Your task to perform on an android device: change text size in settings app Image 0: 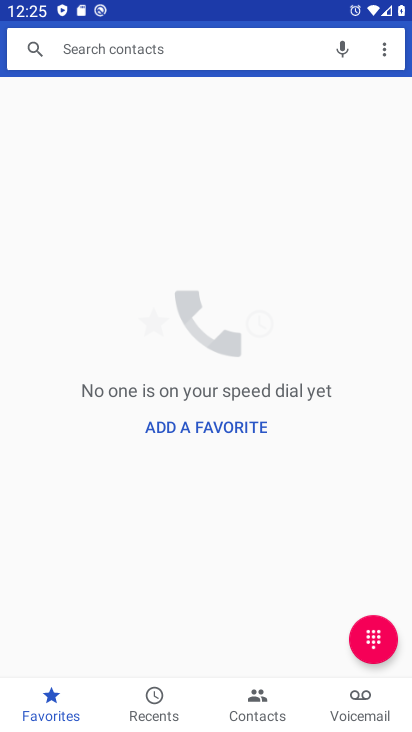
Step 0: press home button
Your task to perform on an android device: change text size in settings app Image 1: 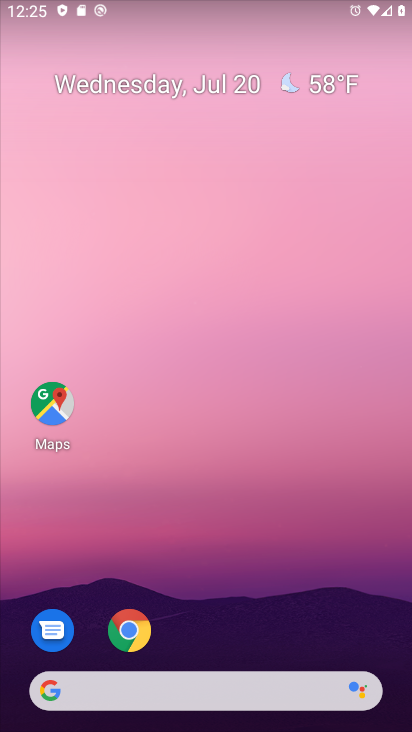
Step 1: drag from (227, 323) to (270, 150)
Your task to perform on an android device: change text size in settings app Image 2: 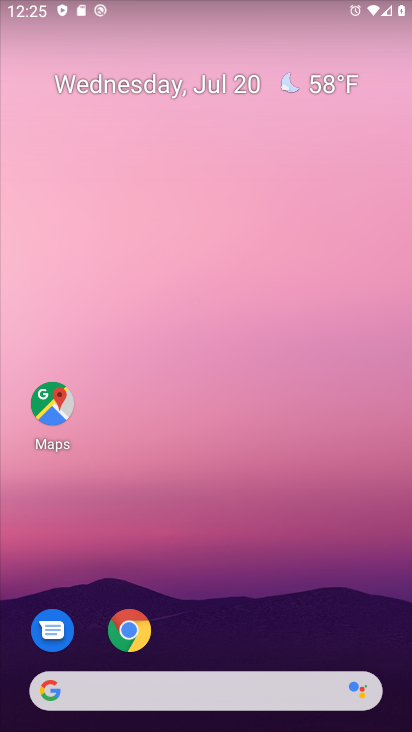
Step 2: drag from (244, 649) to (334, 51)
Your task to perform on an android device: change text size in settings app Image 3: 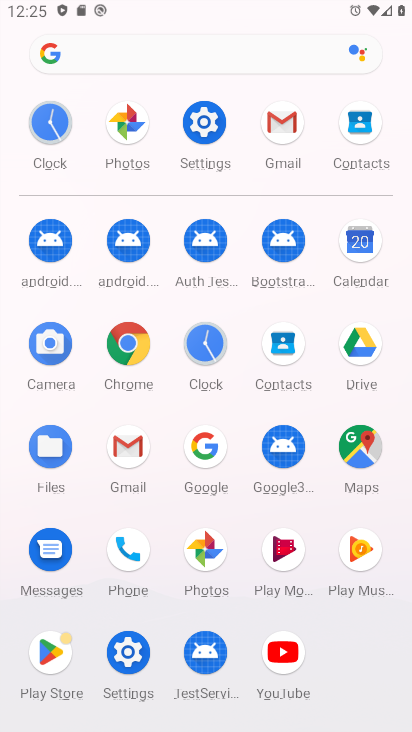
Step 3: click (202, 126)
Your task to perform on an android device: change text size in settings app Image 4: 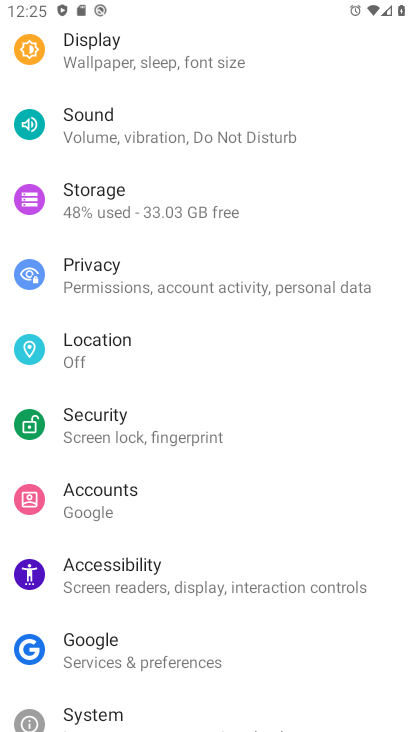
Step 4: drag from (317, 103) to (276, 495)
Your task to perform on an android device: change text size in settings app Image 5: 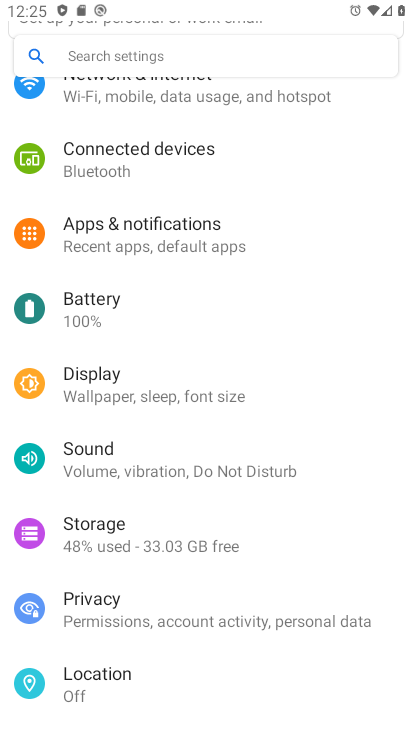
Step 5: click (152, 391)
Your task to perform on an android device: change text size in settings app Image 6: 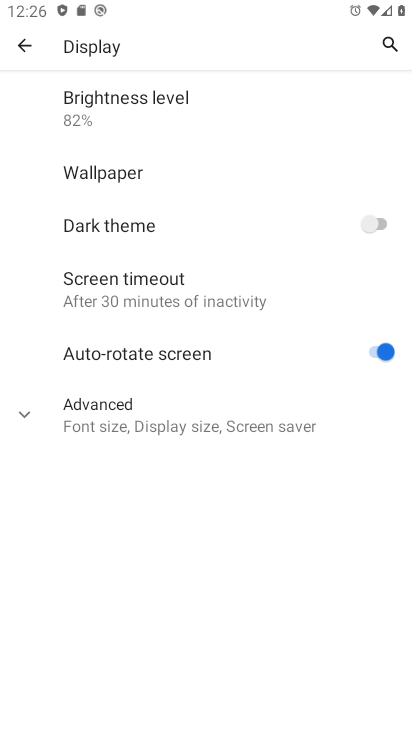
Step 6: click (107, 409)
Your task to perform on an android device: change text size in settings app Image 7: 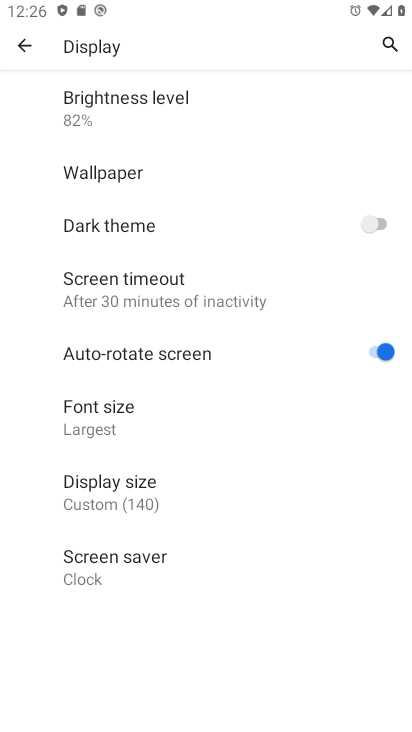
Step 7: click (101, 422)
Your task to perform on an android device: change text size in settings app Image 8: 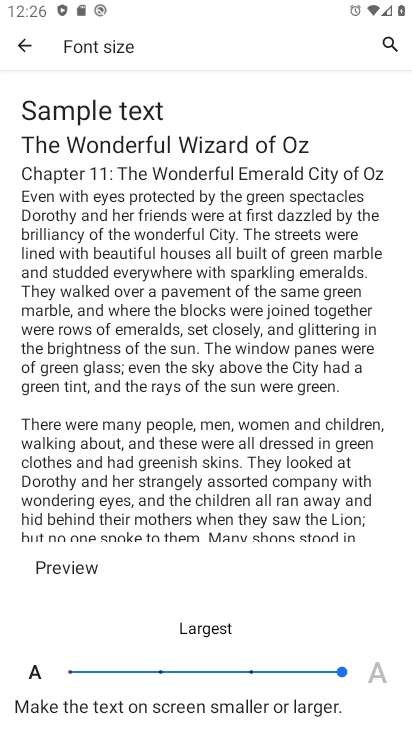
Step 8: click (252, 675)
Your task to perform on an android device: change text size in settings app Image 9: 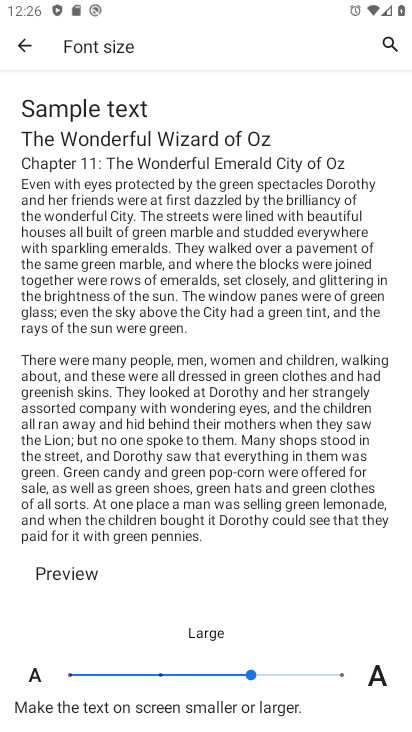
Step 9: task complete